Your task to perform on an android device: empty trash in google photos Image 0: 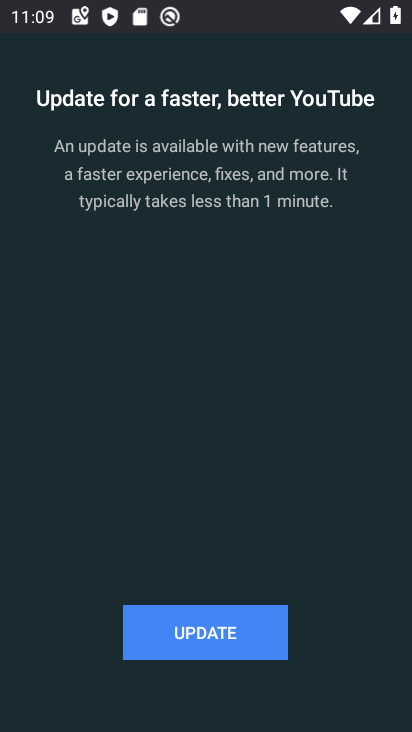
Step 0: press home button
Your task to perform on an android device: empty trash in google photos Image 1: 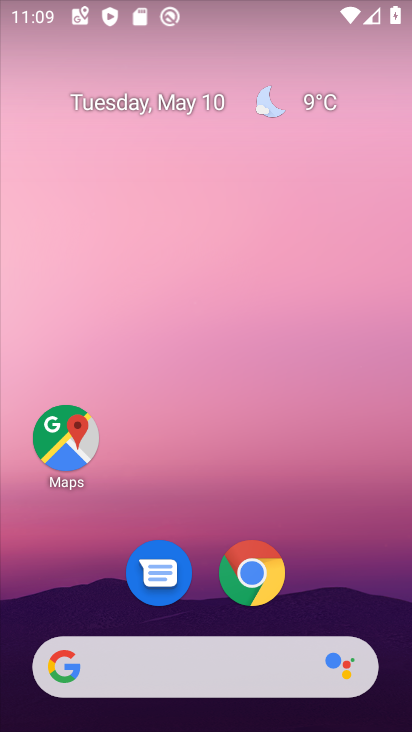
Step 1: drag from (216, 727) to (230, 140)
Your task to perform on an android device: empty trash in google photos Image 2: 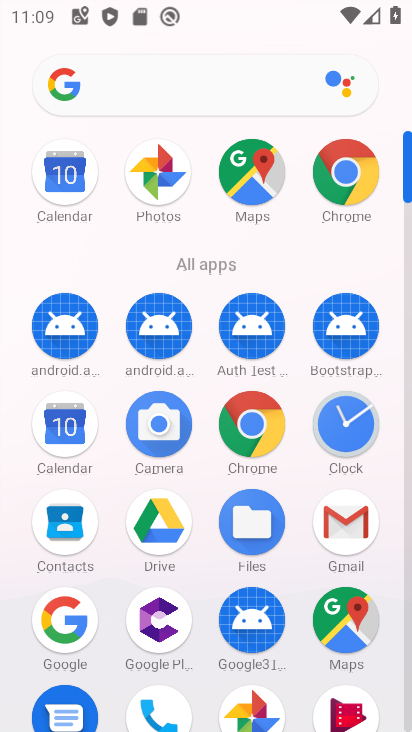
Step 2: click (157, 172)
Your task to perform on an android device: empty trash in google photos Image 3: 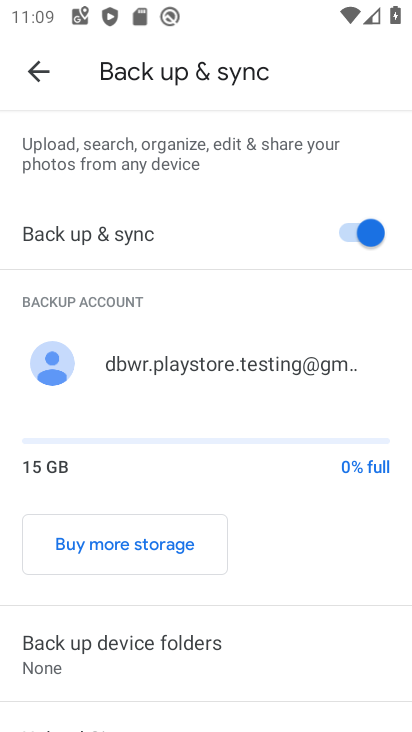
Step 3: click (37, 69)
Your task to perform on an android device: empty trash in google photos Image 4: 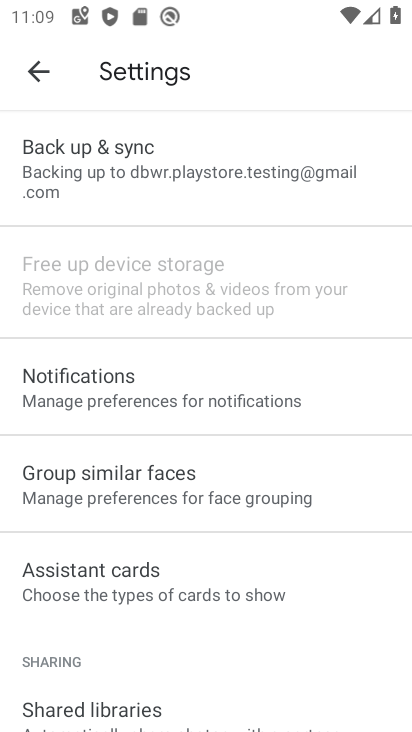
Step 4: click (37, 69)
Your task to perform on an android device: empty trash in google photos Image 5: 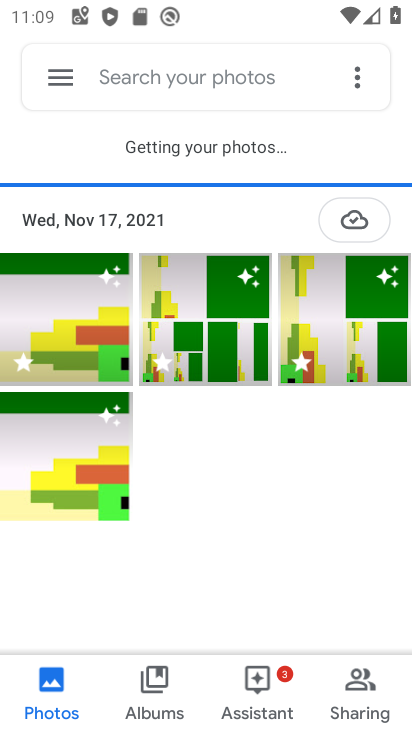
Step 5: click (61, 71)
Your task to perform on an android device: empty trash in google photos Image 6: 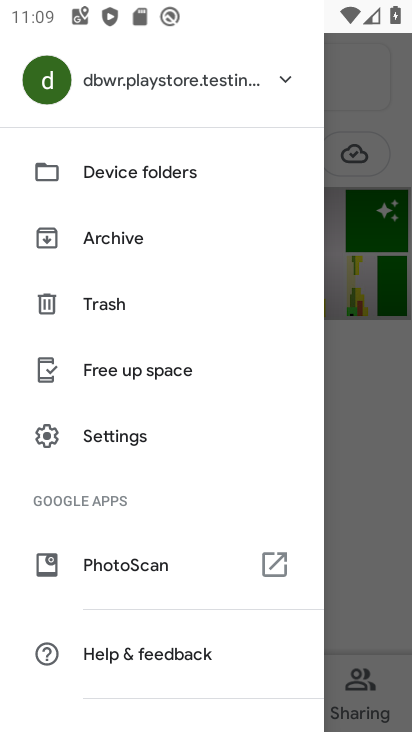
Step 6: click (100, 298)
Your task to perform on an android device: empty trash in google photos Image 7: 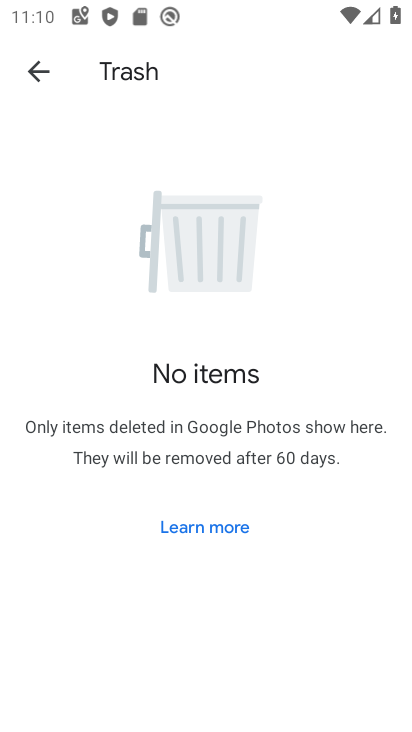
Step 7: task complete